Your task to perform on an android device: turn off location history Image 0: 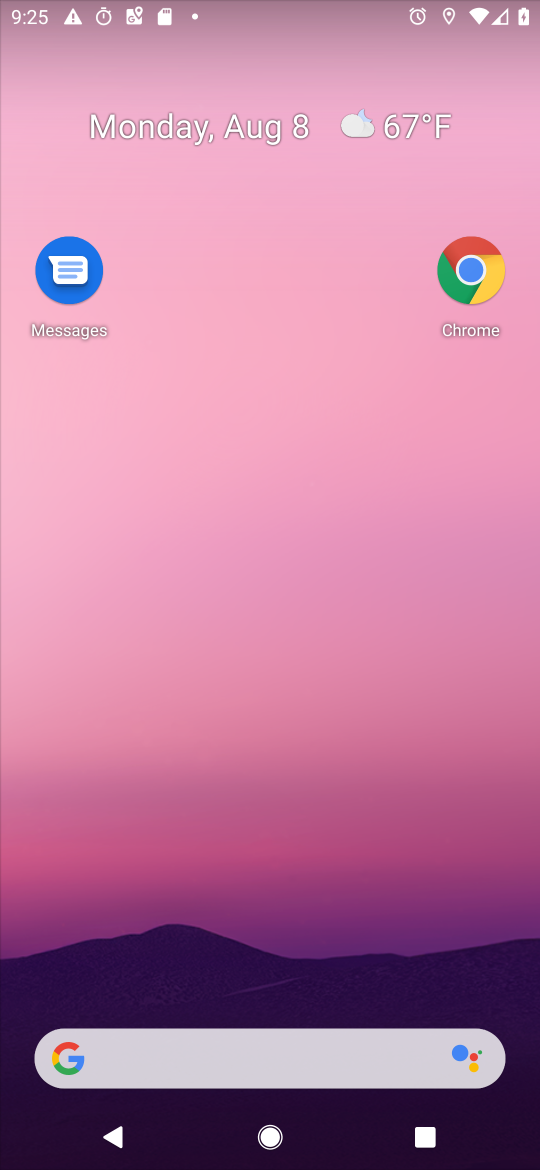
Step 0: press home button
Your task to perform on an android device: turn off location history Image 1: 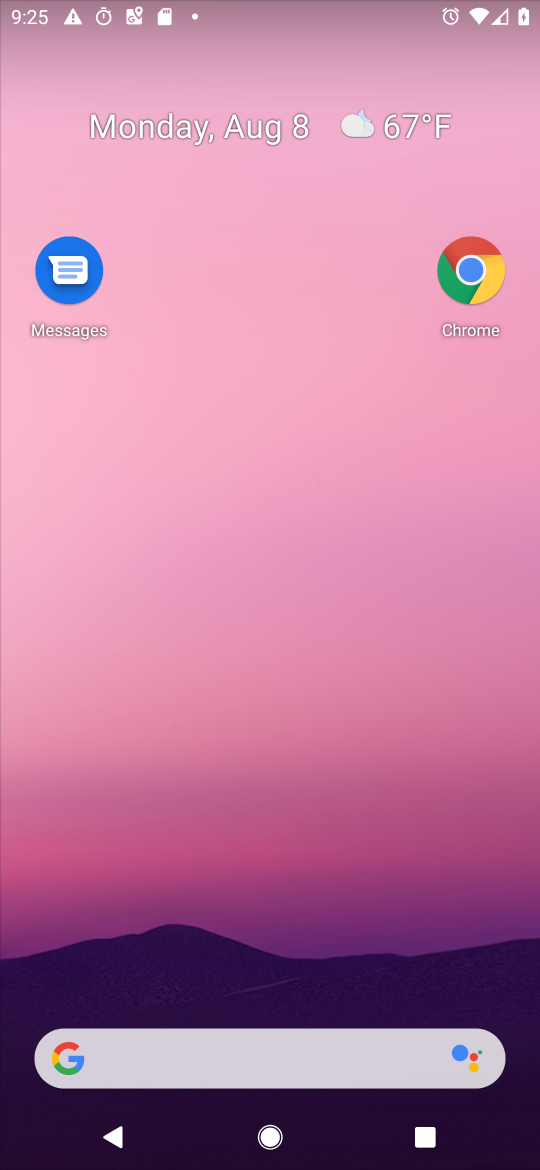
Step 1: drag from (261, 853) to (370, 20)
Your task to perform on an android device: turn off location history Image 2: 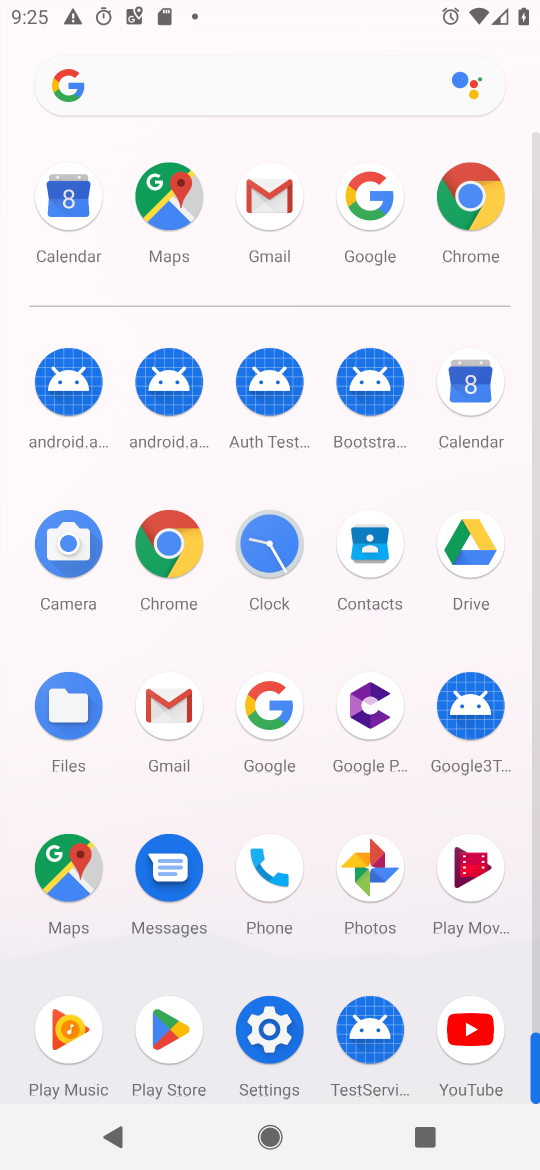
Step 2: click (265, 1048)
Your task to perform on an android device: turn off location history Image 3: 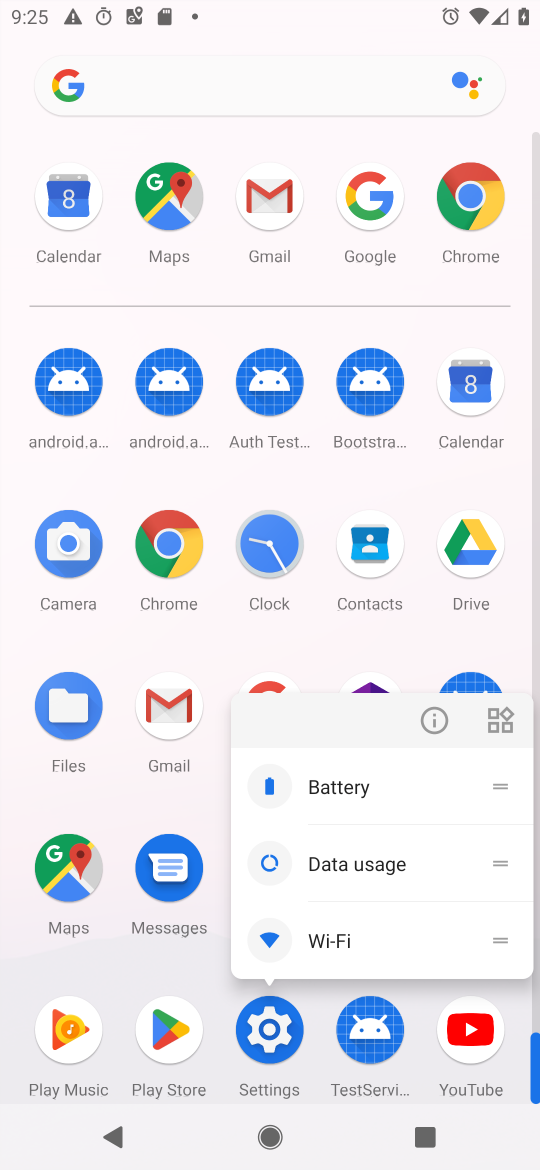
Step 3: click (438, 720)
Your task to perform on an android device: turn off location history Image 4: 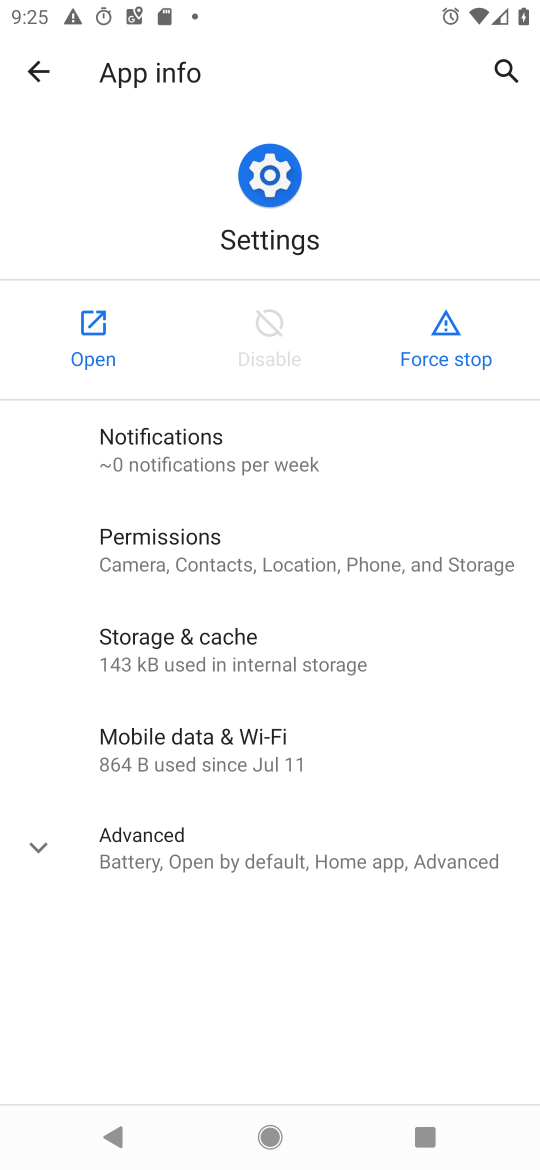
Step 4: click (88, 344)
Your task to perform on an android device: turn off location history Image 5: 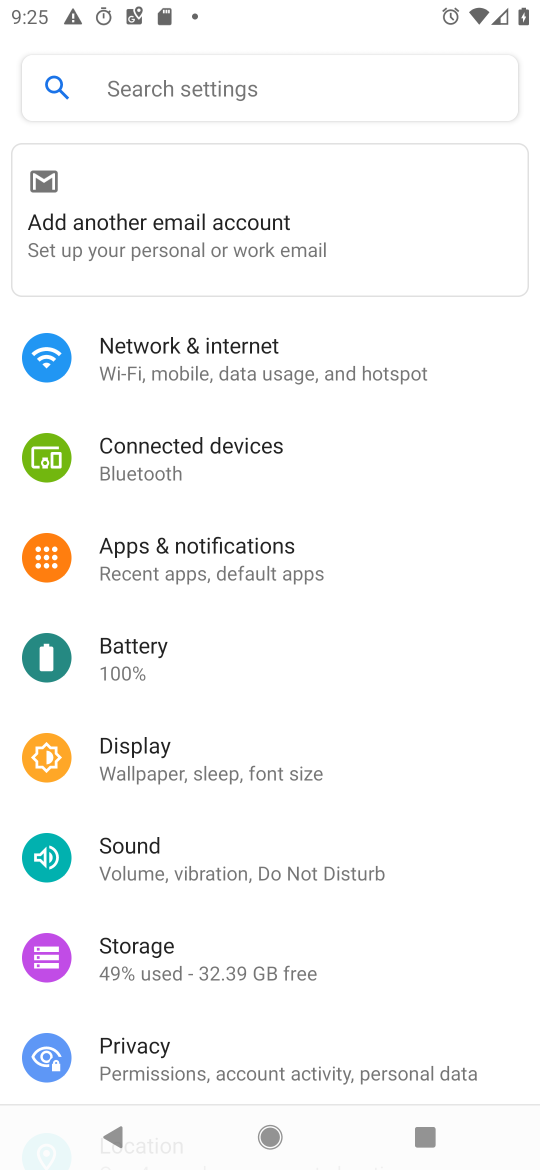
Step 5: drag from (235, 946) to (294, 96)
Your task to perform on an android device: turn off location history Image 6: 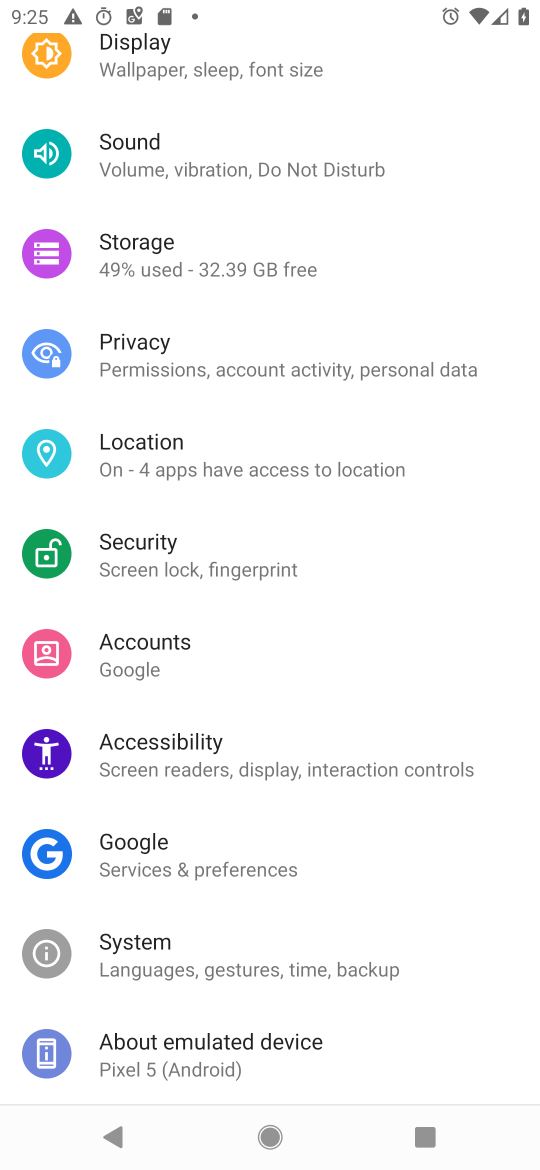
Step 6: click (208, 443)
Your task to perform on an android device: turn off location history Image 7: 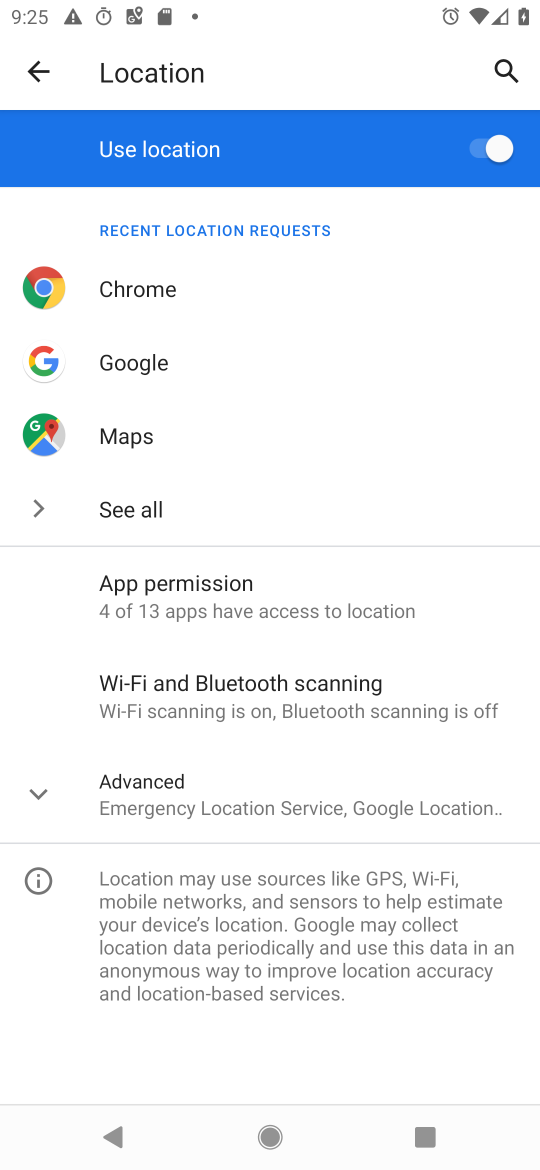
Step 7: click (238, 777)
Your task to perform on an android device: turn off location history Image 8: 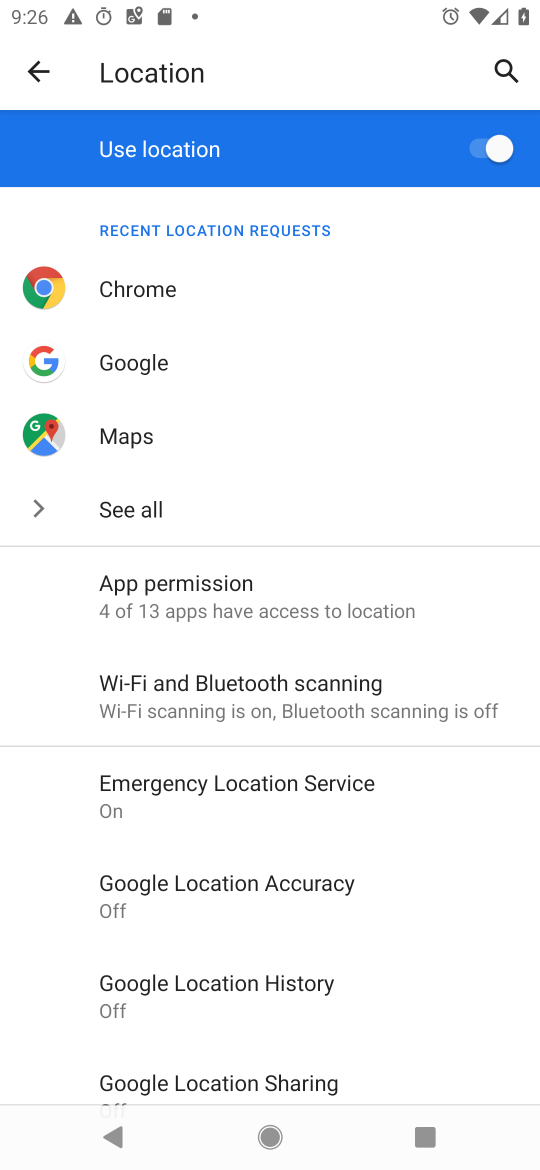
Step 8: click (234, 991)
Your task to perform on an android device: turn off location history Image 9: 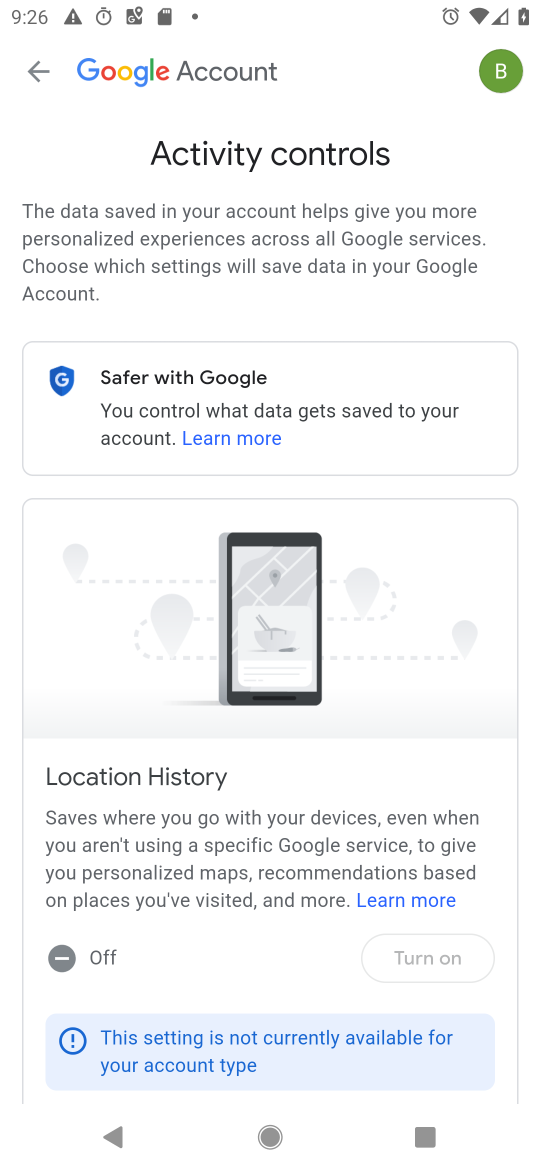
Step 9: task complete